Your task to perform on an android device: Open Yahoo.com Image 0: 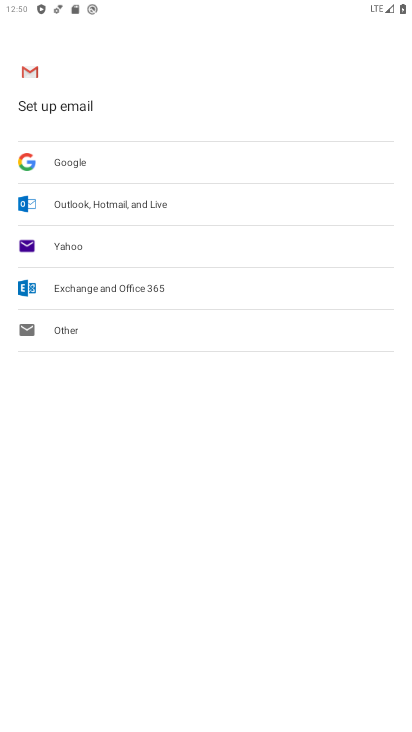
Step 0: press home button
Your task to perform on an android device: Open Yahoo.com Image 1: 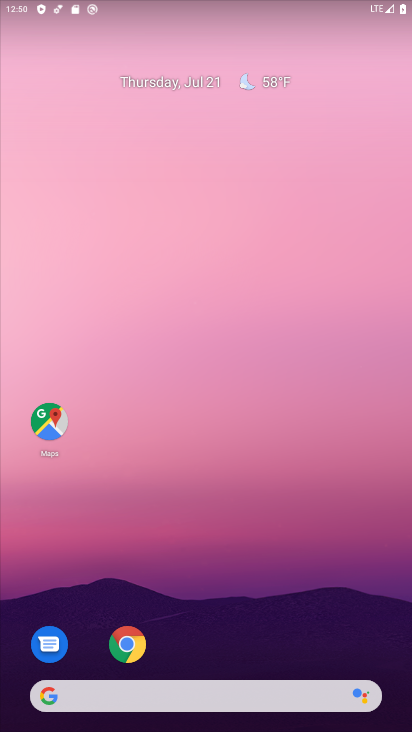
Step 1: drag from (349, 552) to (360, 161)
Your task to perform on an android device: Open Yahoo.com Image 2: 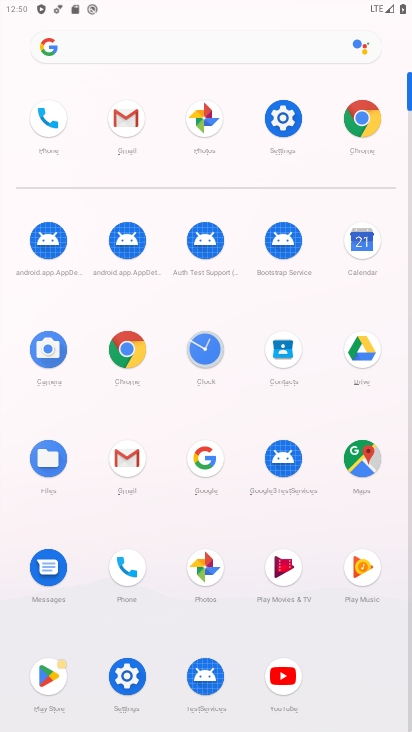
Step 2: click (351, 131)
Your task to perform on an android device: Open Yahoo.com Image 3: 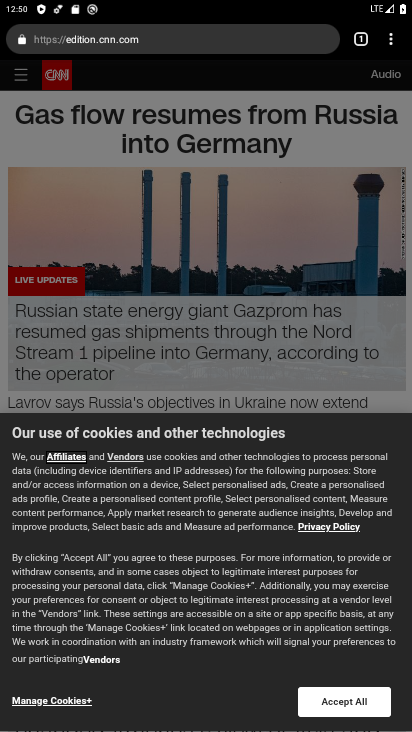
Step 3: click (210, 43)
Your task to perform on an android device: Open Yahoo.com Image 4: 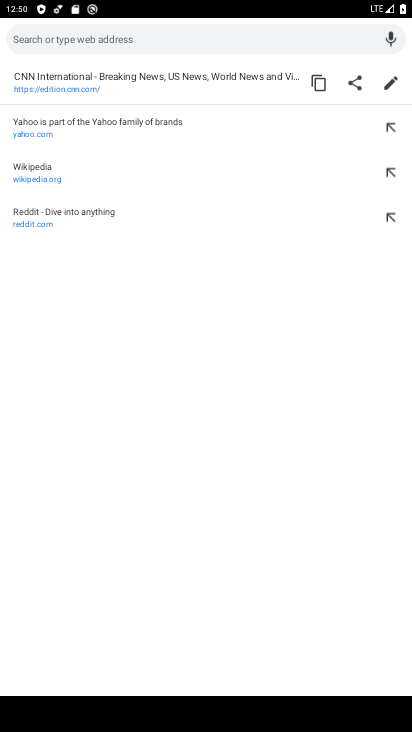
Step 4: type "yahoo.com"
Your task to perform on an android device: Open Yahoo.com Image 5: 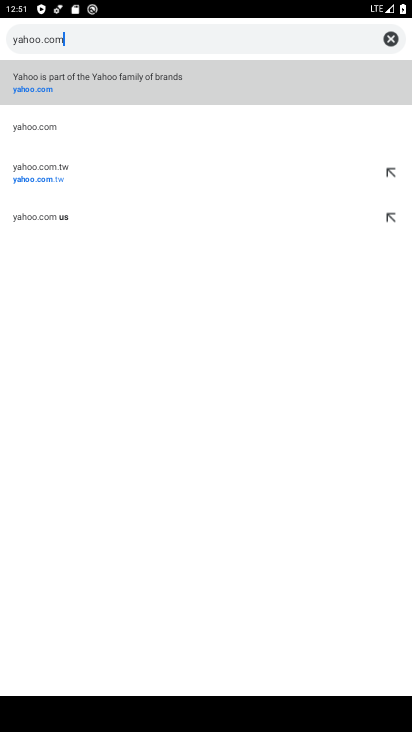
Step 5: click (211, 78)
Your task to perform on an android device: Open Yahoo.com Image 6: 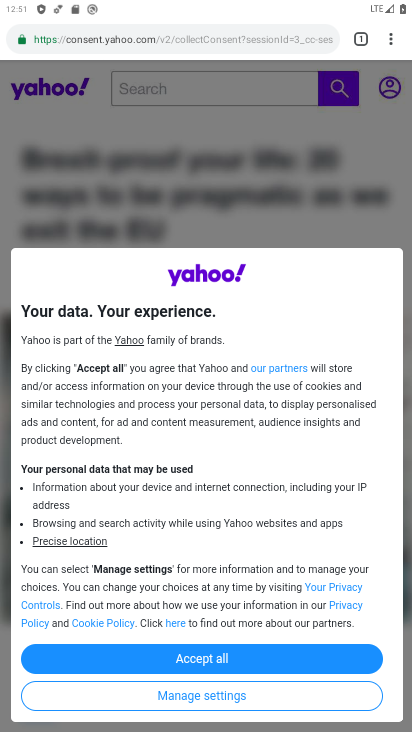
Step 6: task complete